Your task to perform on an android device: check the backup settings in the google photos Image 0: 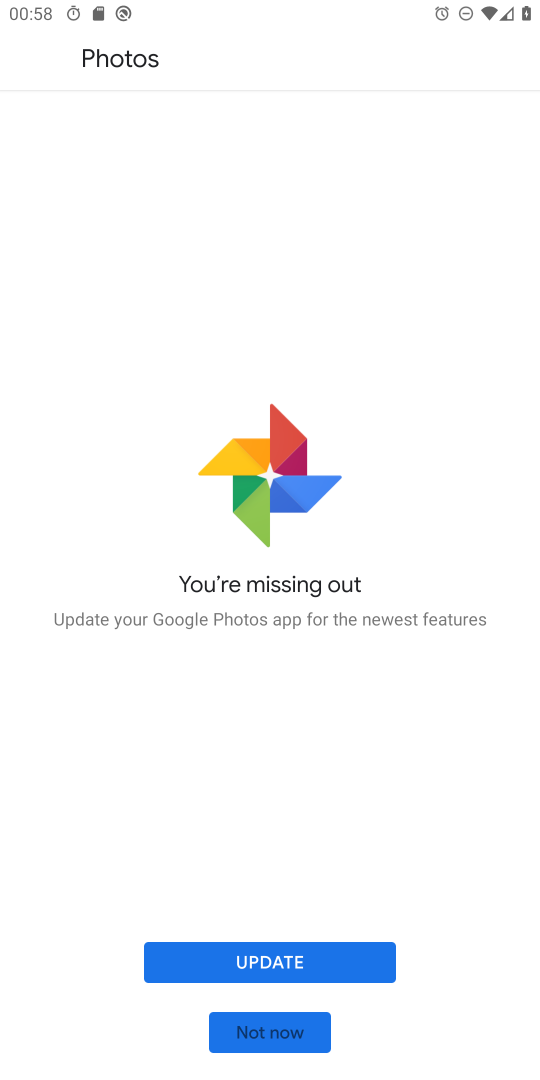
Step 0: click (250, 1031)
Your task to perform on an android device: check the backup settings in the google photos Image 1: 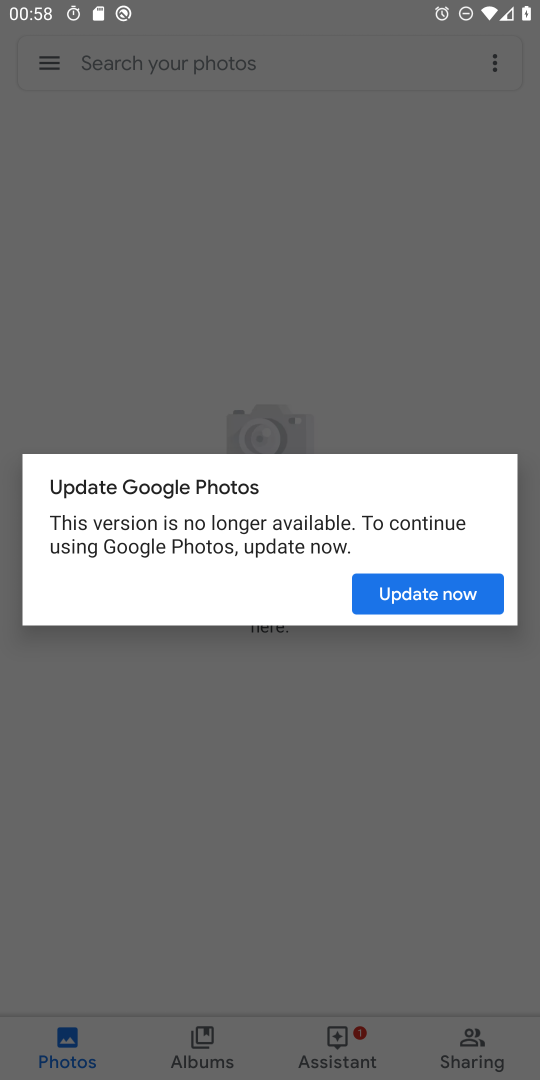
Step 1: click (456, 597)
Your task to perform on an android device: check the backup settings in the google photos Image 2: 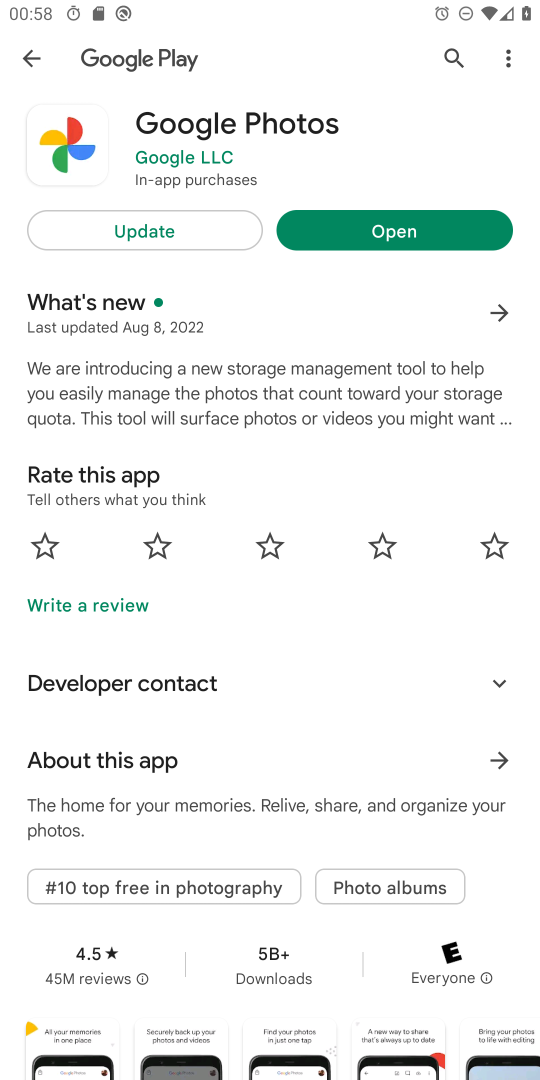
Step 2: click (388, 223)
Your task to perform on an android device: check the backup settings in the google photos Image 3: 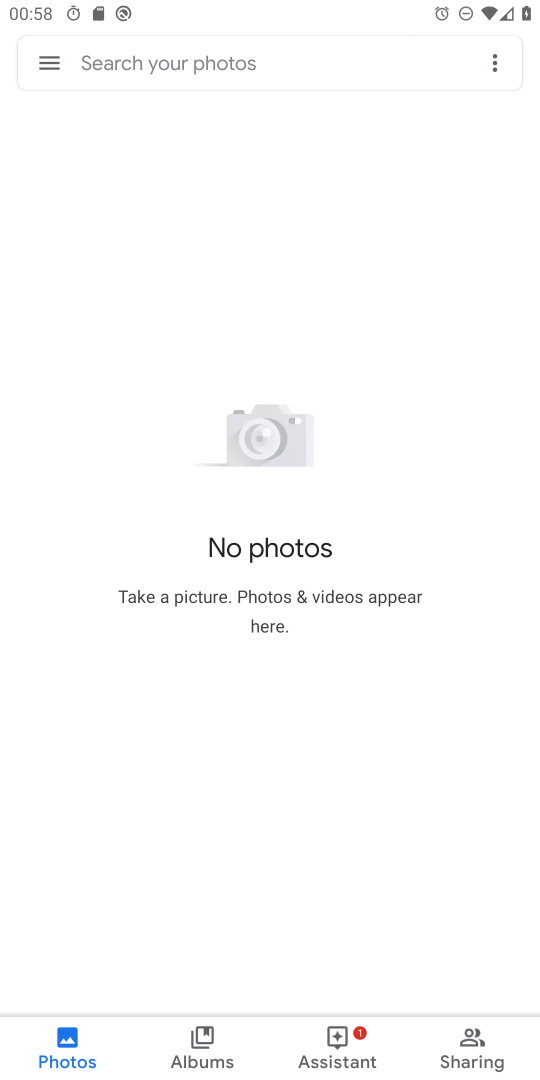
Step 3: click (92, 83)
Your task to perform on an android device: check the backup settings in the google photos Image 4: 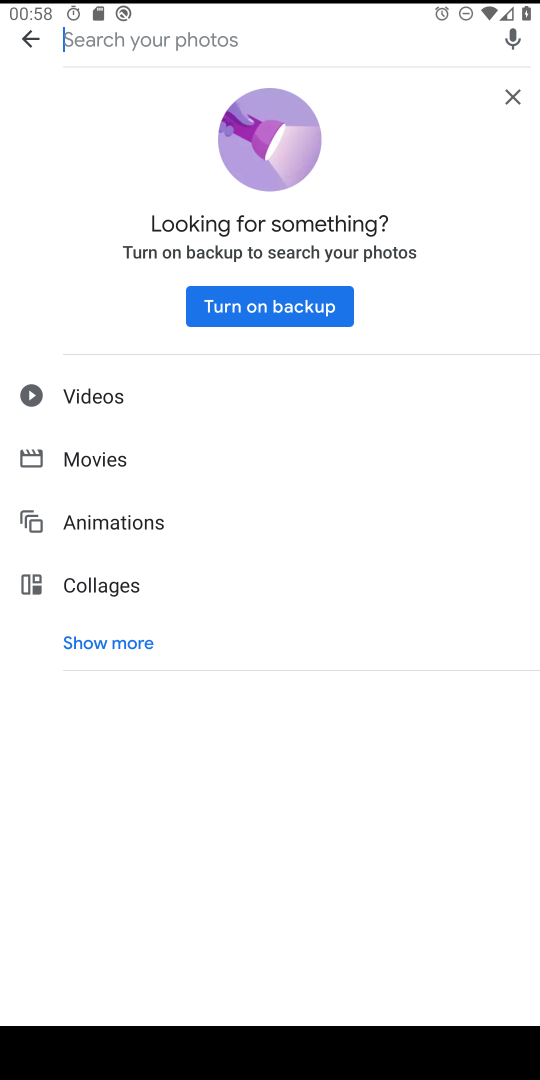
Step 4: click (32, 39)
Your task to perform on an android device: check the backup settings in the google photos Image 5: 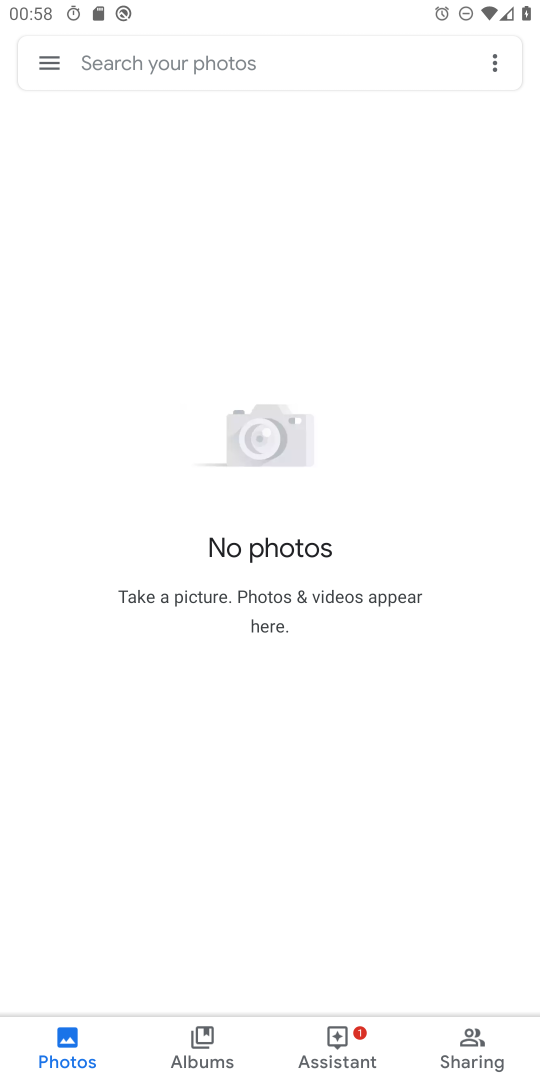
Step 5: click (32, 39)
Your task to perform on an android device: check the backup settings in the google photos Image 6: 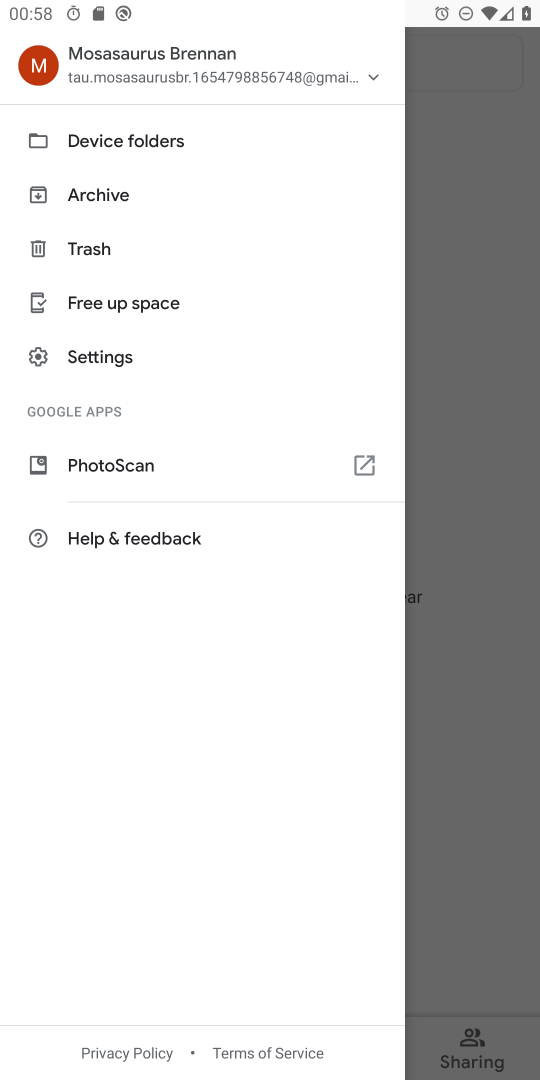
Step 6: click (125, 378)
Your task to perform on an android device: check the backup settings in the google photos Image 7: 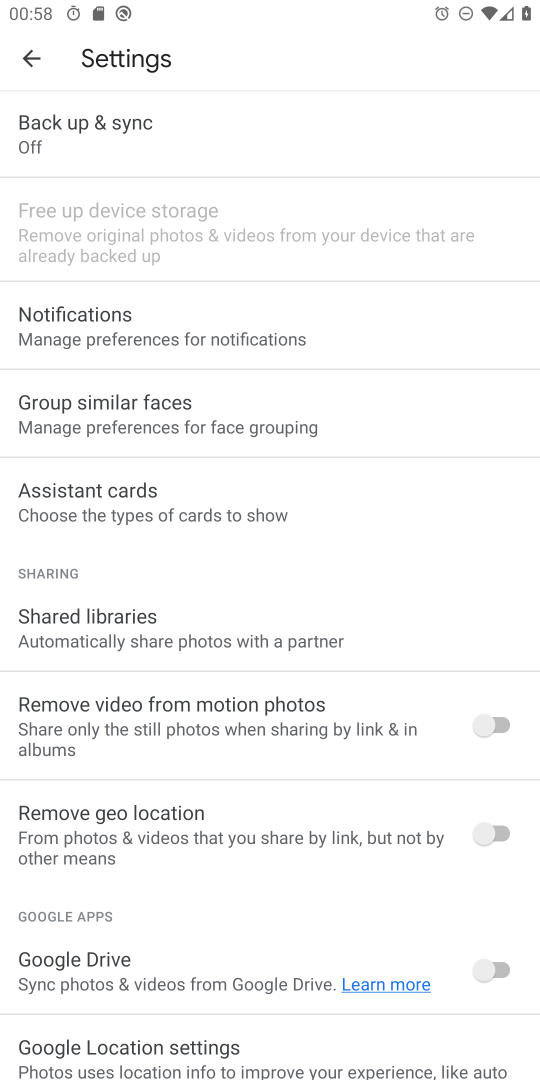
Step 7: click (131, 125)
Your task to perform on an android device: check the backup settings in the google photos Image 8: 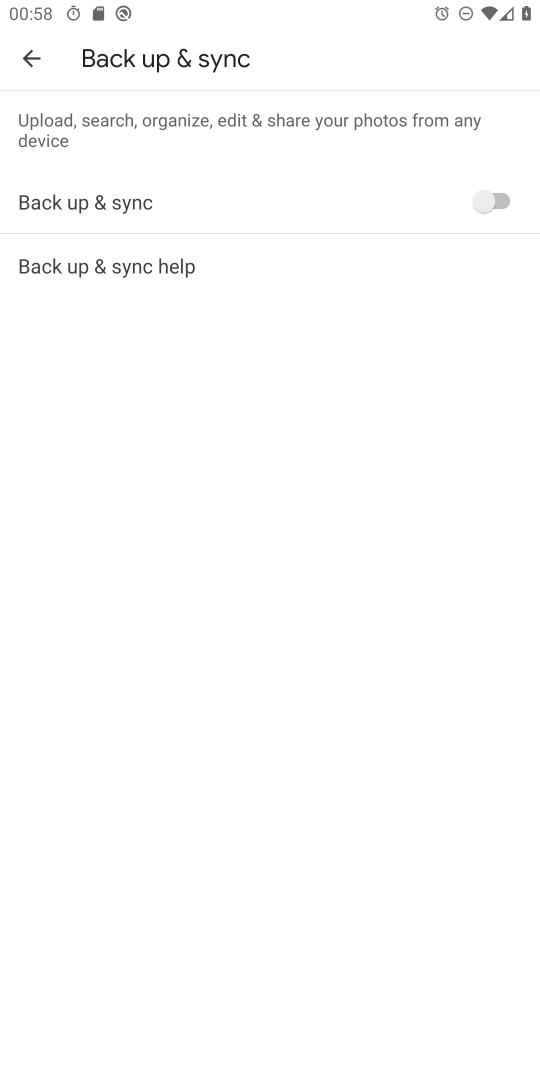
Step 8: click (484, 198)
Your task to perform on an android device: check the backup settings in the google photos Image 9: 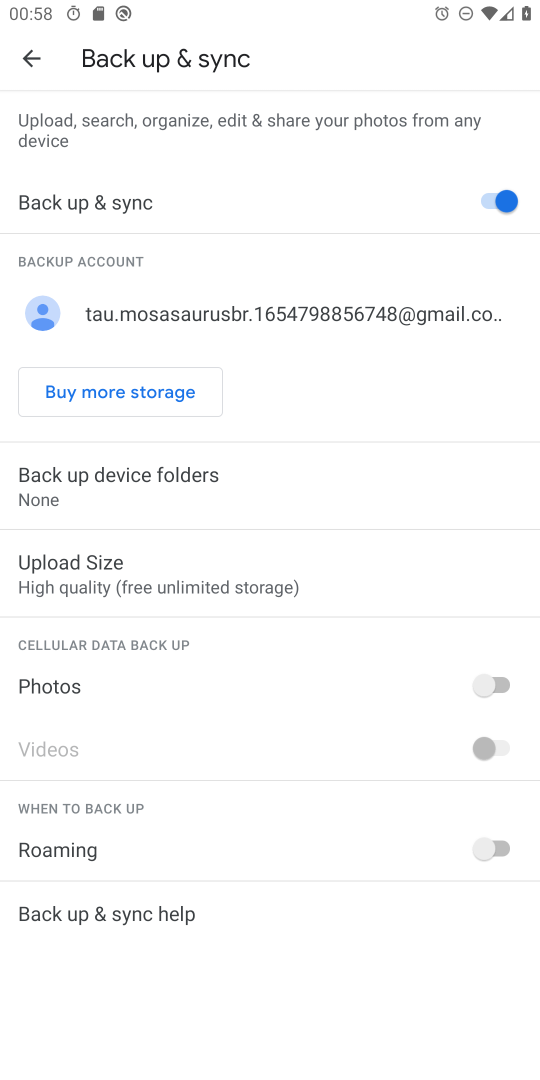
Step 9: task complete